Your task to perform on an android device: turn on showing notifications on the lock screen Image 0: 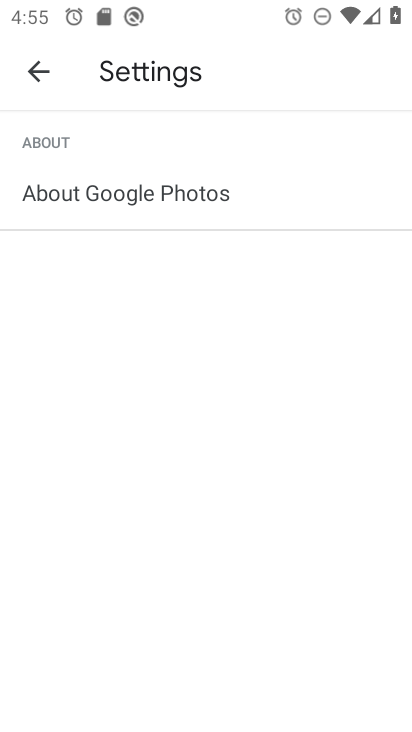
Step 0: press home button
Your task to perform on an android device: turn on showing notifications on the lock screen Image 1: 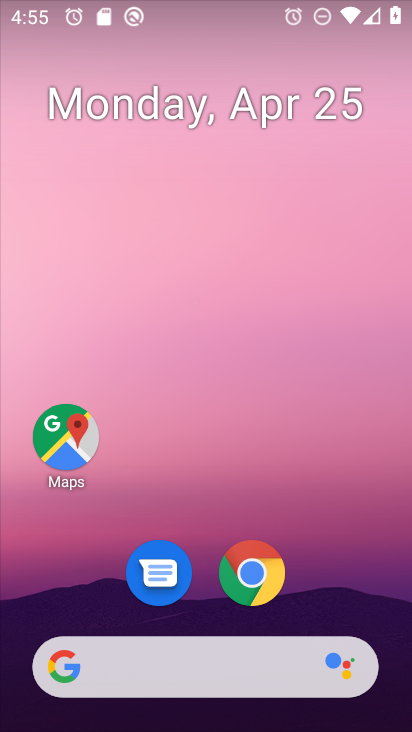
Step 1: drag from (377, 628) to (383, 6)
Your task to perform on an android device: turn on showing notifications on the lock screen Image 2: 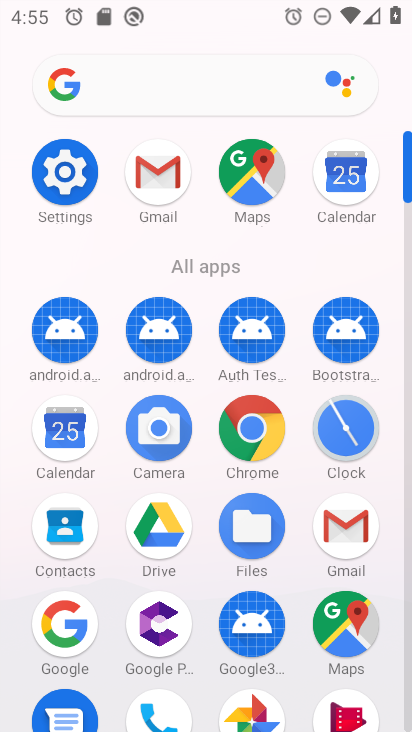
Step 2: click (71, 166)
Your task to perform on an android device: turn on showing notifications on the lock screen Image 3: 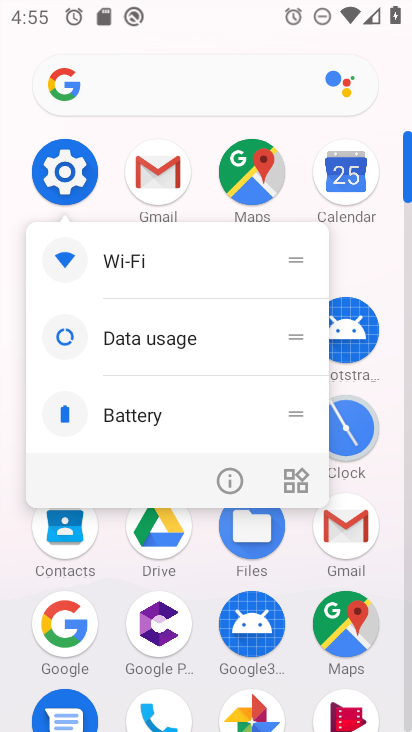
Step 3: click (60, 184)
Your task to perform on an android device: turn on showing notifications on the lock screen Image 4: 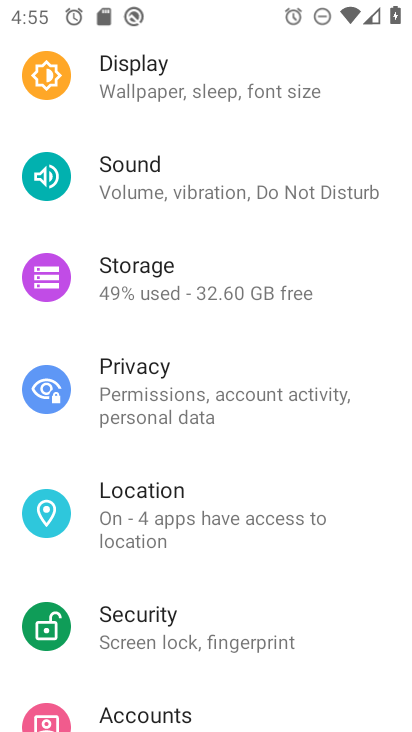
Step 4: drag from (366, 607) to (348, 163)
Your task to perform on an android device: turn on showing notifications on the lock screen Image 5: 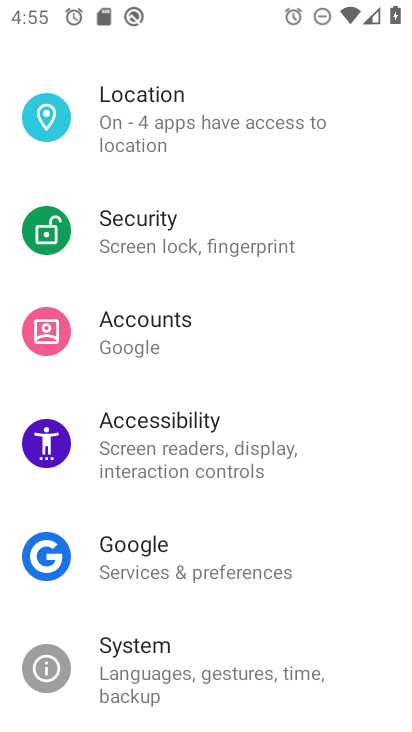
Step 5: drag from (340, 148) to (355, 713)
Your task to perform on an android device: turn on showing notifications on the lock screen Image 6: 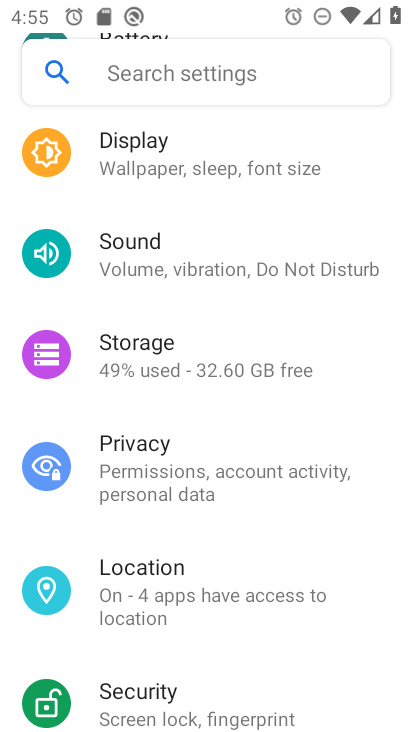
Step 6: drag from (262, 303) to (285, 618)
Your task to perform on an android device: turn on showing notifications on the lock screen Image 7: 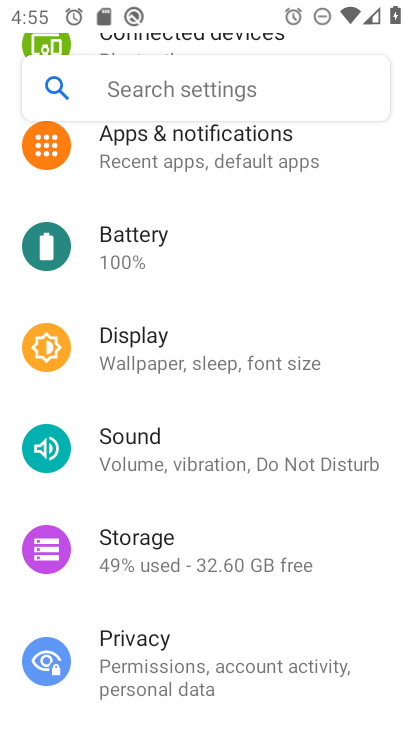
Step 7: click (264, 158)
Your task to perform on an android device: turn on showing notifications on the lock screen Image 8: 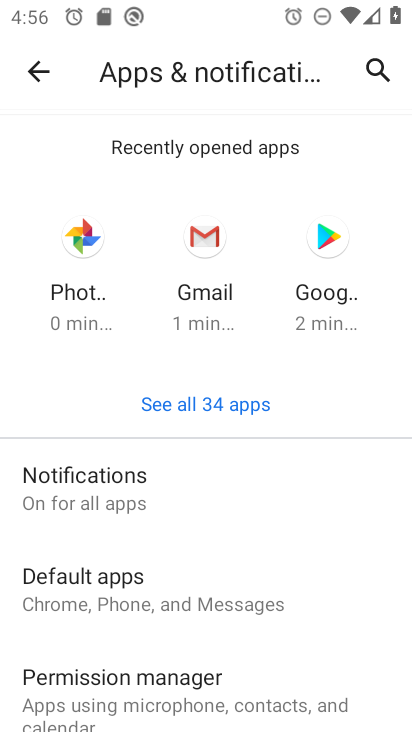
Step 8: click (80, 491)
Your task to perform on an android device: turn on showing notifications on the lock screen Image 9: 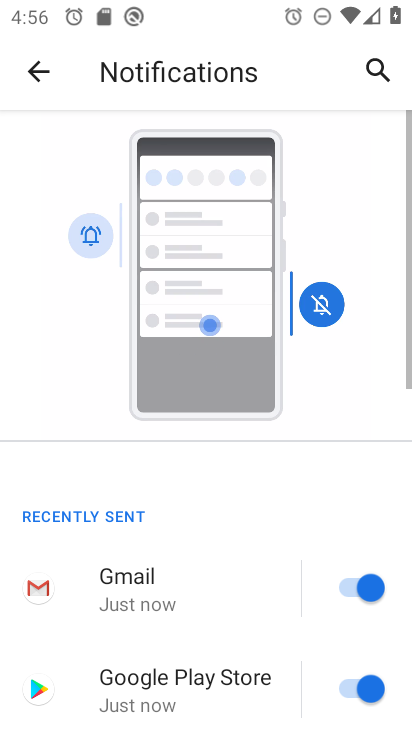
Step 9: drag from (272, 561) to (250, 40)
Your task to perform on an android device: turn on showing notifications on the lock screen Image 10: 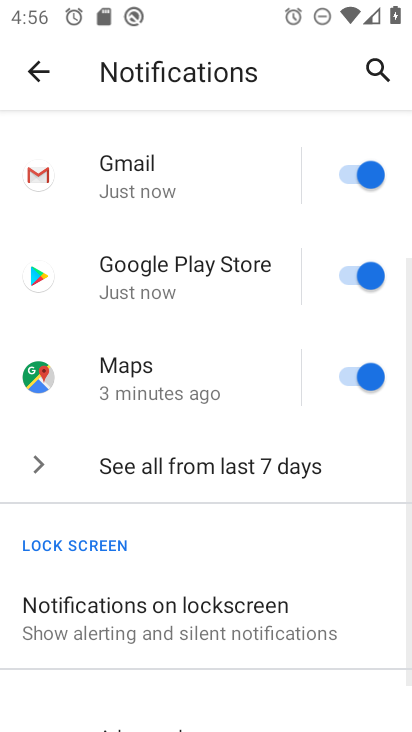
Step 10: drag from (230, 575) to (196, 121)
Your task to perform on an android device: turn on showing notifications on the lock screen Image 11: 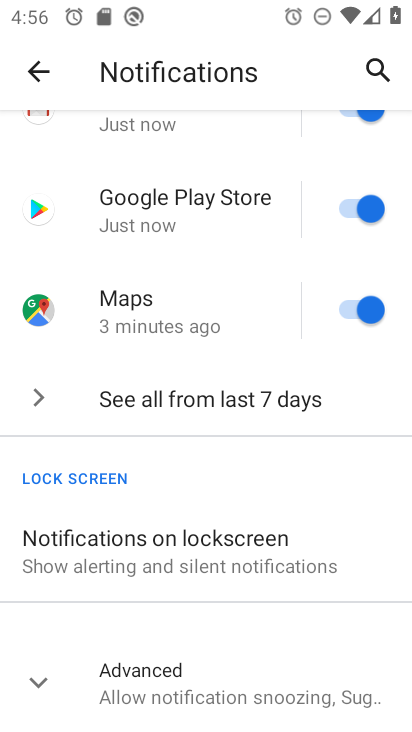
Step 11: click (148, 559)
Your task to perform on an android device: turn on showing notifications on the lock screen Image 12: 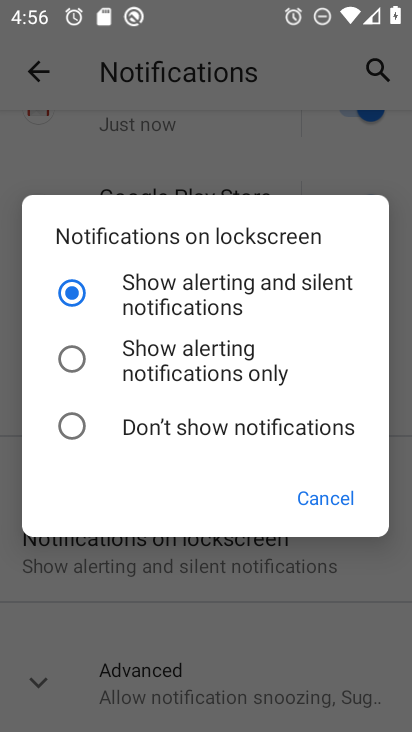
Step 12: task complete